Your task to perform on an android device: Show me popular videos on Youtube Image 0: 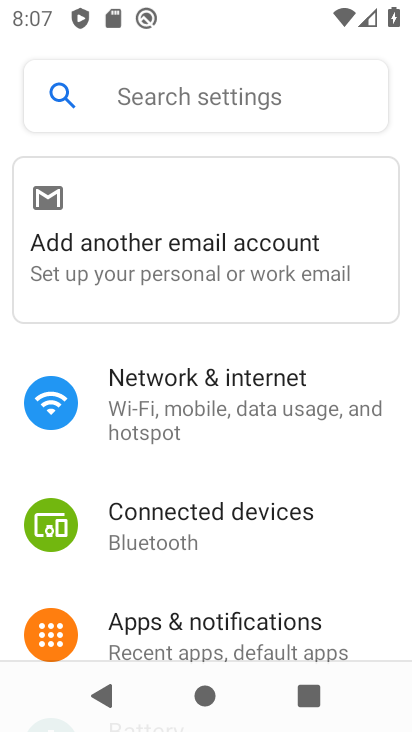
Step 0: press home button
Your task to perform on an android device: Show me popular videos on Youtube Image 1: 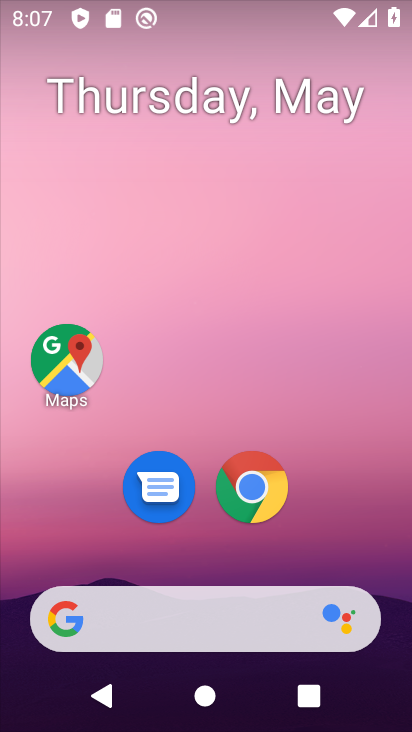
Step 1: drag from (390, 551) to (309, 25)
Your task to perform on an android device: Show me popular videos on Youtube Image 2: 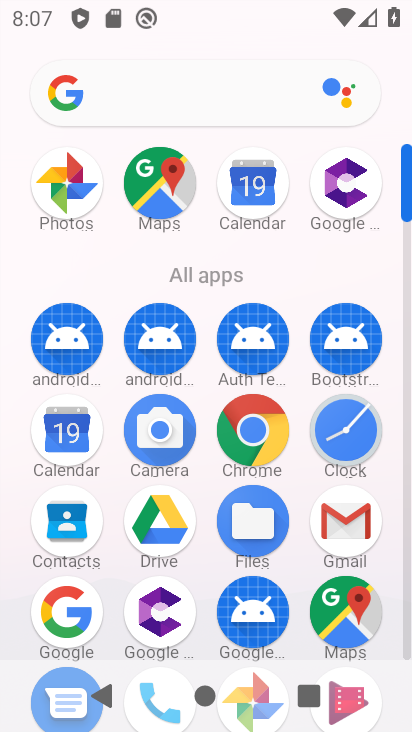
Step 2: drag from (212, 297) to (212, 21)
Your task to perform on an android device: Show me popular videos on Youtube Image 3: 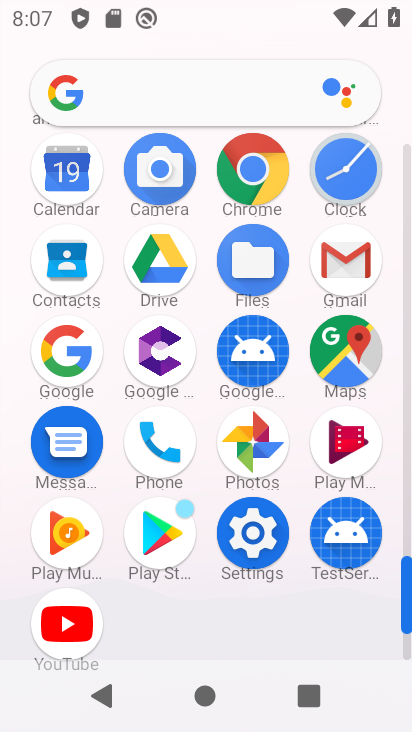
Step 3: click (53, 617)
Your task to perform on an android device: Show me popular videos on Youtube Image 4: 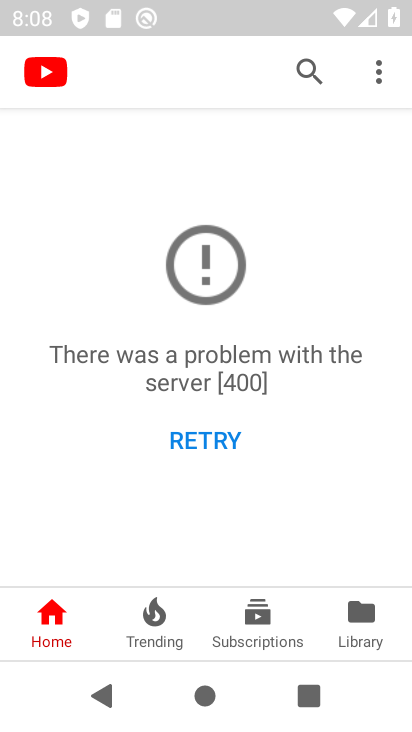
Step 4: click (378, 620)
Your task to perform on an android device: Show me popular videos on Youtube Image 5: 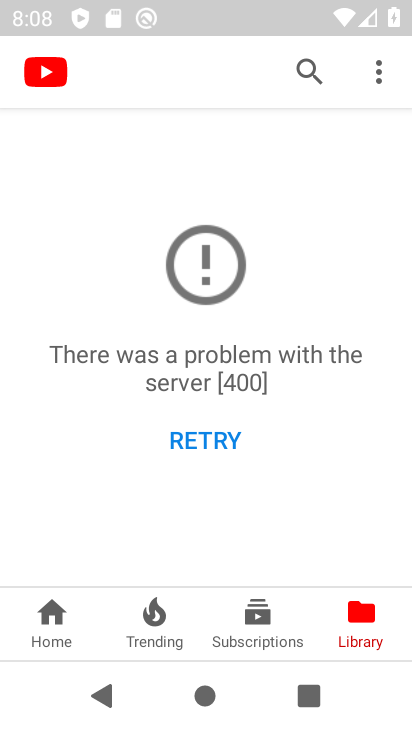
Step 5: task complete